Your task to perform on an android device: Search for vegetarian restaurants on Maps Image 0: 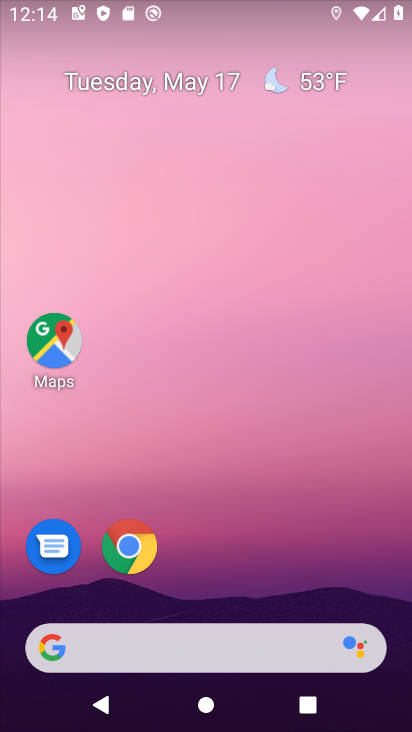
Step 0: click (56, 343)
Your task to perform on an android device: Search for vegetarian restaurants on Maps Image 1: 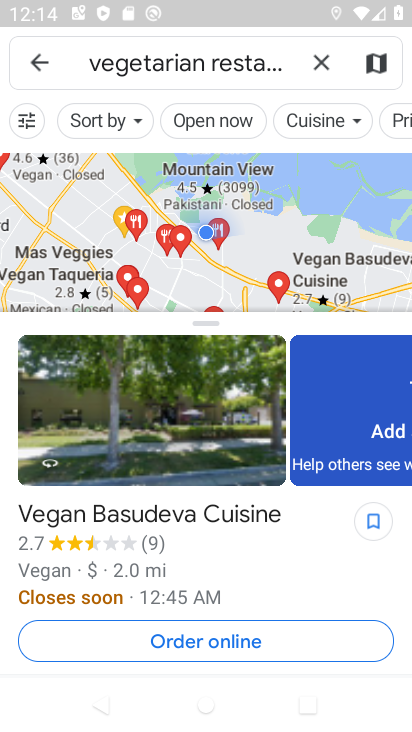
Step 1: task complete